Your task to perform on an android device: Open Google Maps Image 0: 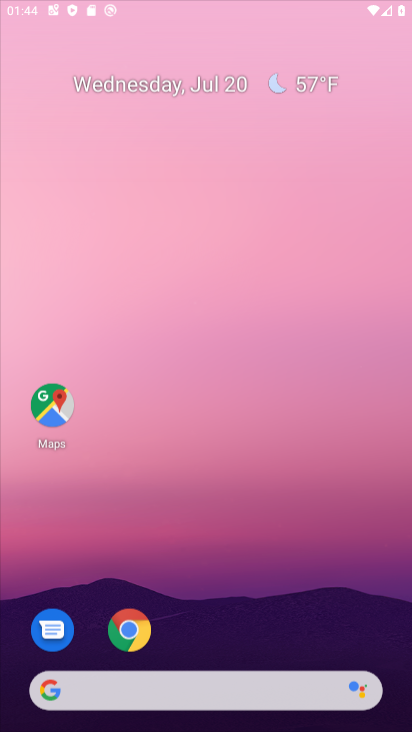
Step 0: drag from (294, 393) to (273, 6)
Your task to perform on an android device: Open Google Maps Image 1: 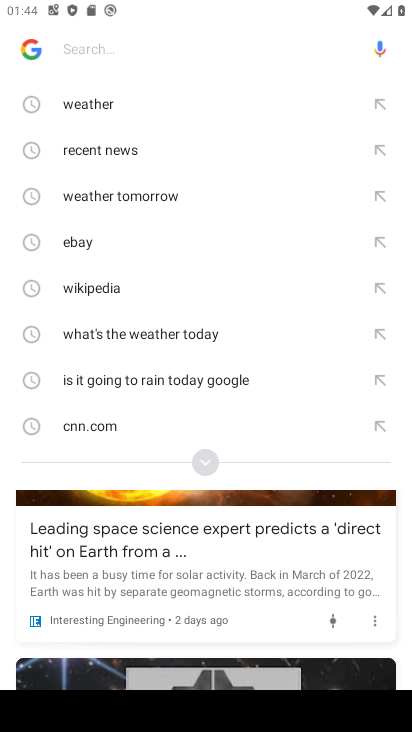
Step 1: press home button
Your task to perform on an android device: Open Google Maps Image 2: 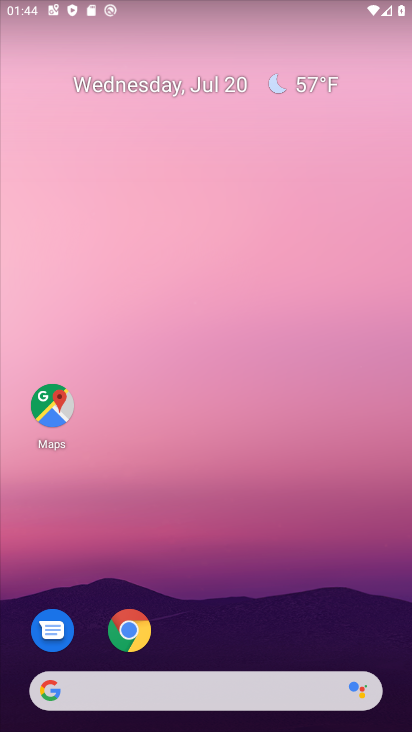
Step 2: drag from (292, 516) to (187, 53)
Your task to perform on an android device: Open Google Maps Image 3: 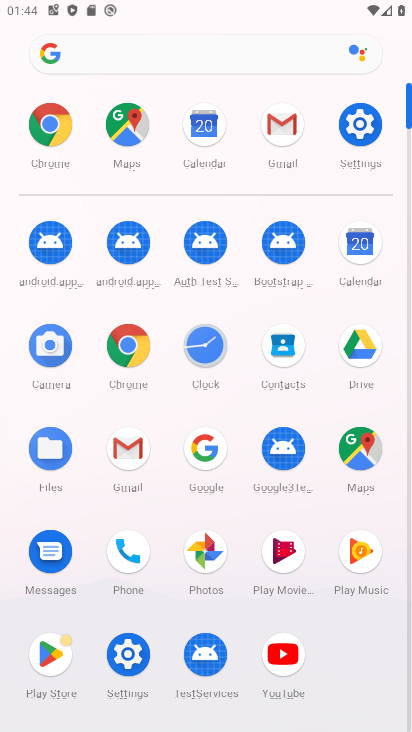
Step 3: click (123, 126)
Your task to perform on an android device: Open Google Maps Image 4: 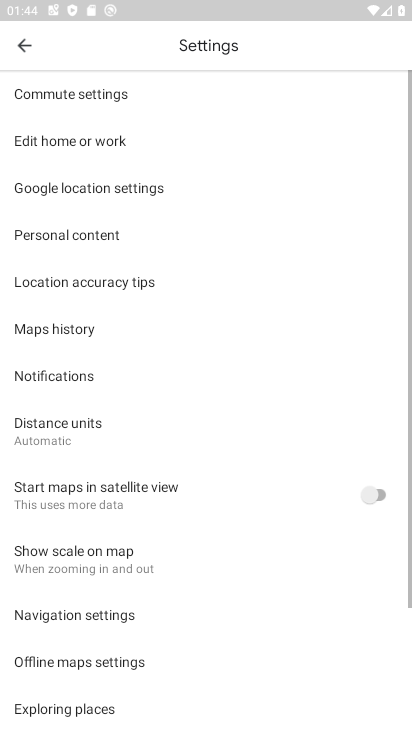
Step 4: click (13, 42)
Your task to perform on an android device: Open Google Maps Image 5: 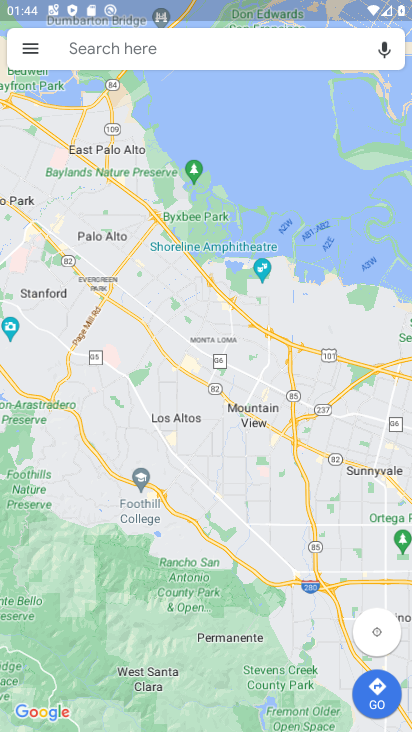
Step 5: click (37, 47)
Your task to perform on an android device: Open Google Maps Image 6: 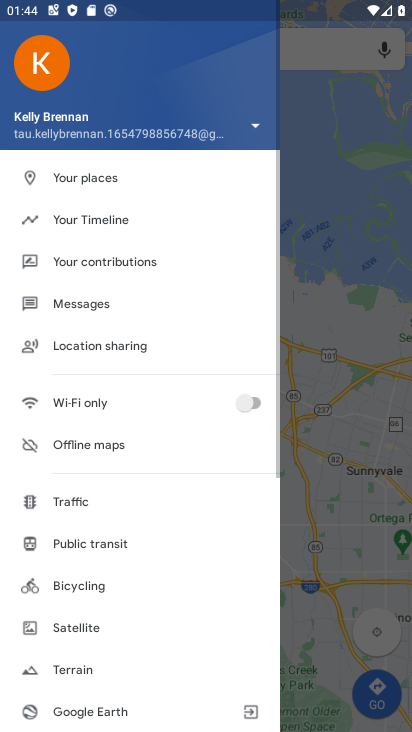
Step 6: click (304, 88)
Your task to perform on an android device: Open Google Maps Image 7: 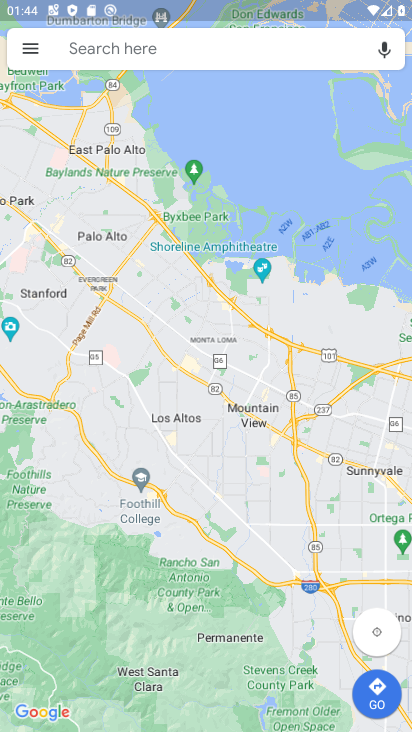
Step 7: task complete